Your task to perform on an android device: Open the phone app and click the voicemail tab. Image 0: 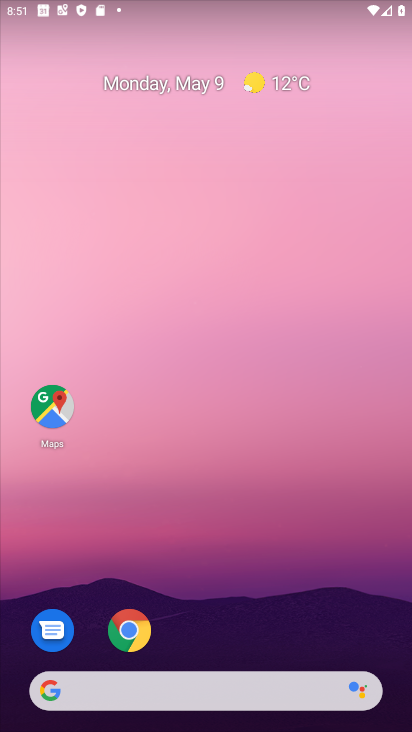
Step 0: drag from (202, 659) to (224, 355)
Your task to perform on an android device: Open the phone app and click the voicemail tab. Image 1: 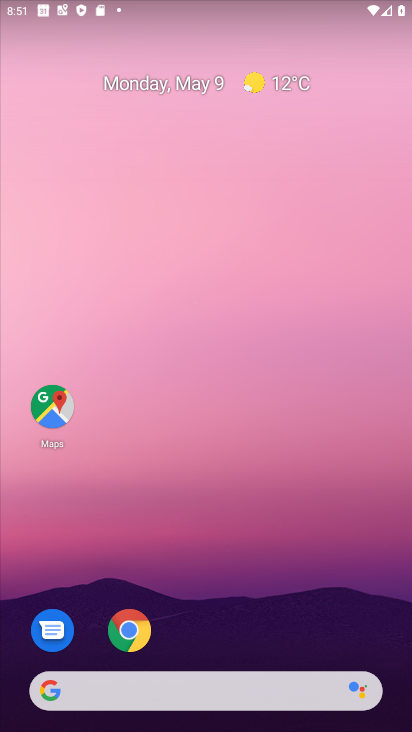
Step 1: drag from (185, 663) to (209, 226)
Your task to perform on an android device: Open the phone app and click the voicemail tab. Image 2: 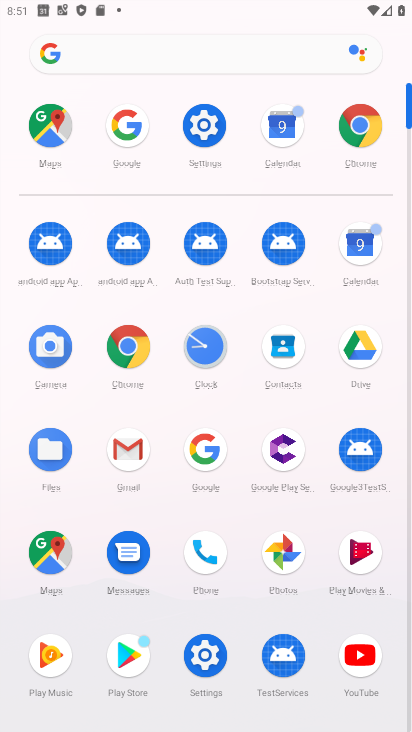
Step 2: click (206, 563)
Your task to perform on an android device: Open the phone app and click the voicemail tab. Image 3: 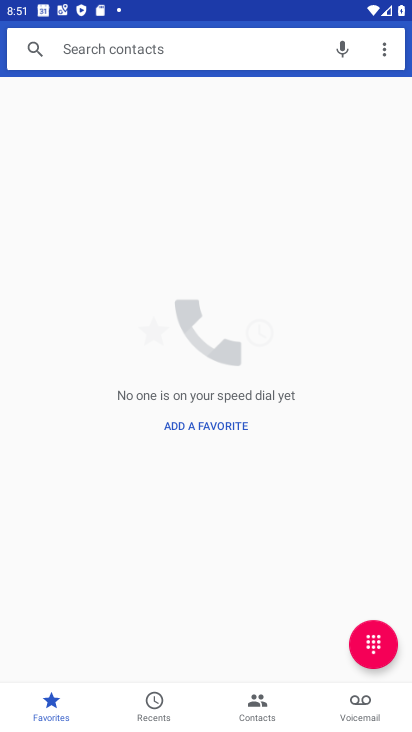
Step 3: click (365, 705)
Your task to perform on an android device: Open the phone app and click the voicemail tab. Image 4: 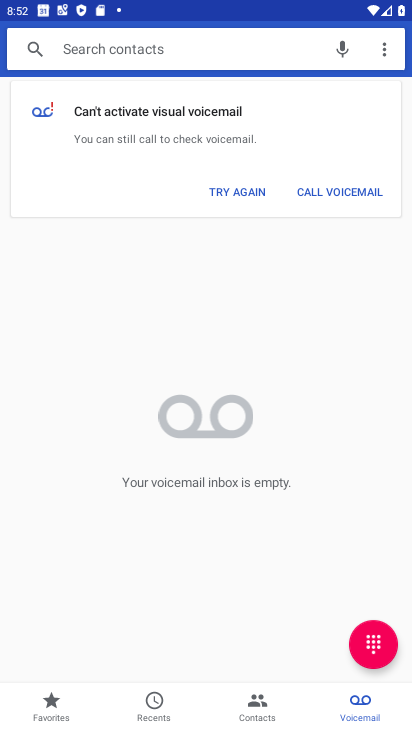
Step 4: task complete